Your task to perform on an android device: Is it going to rain tomorrow? Image 0: 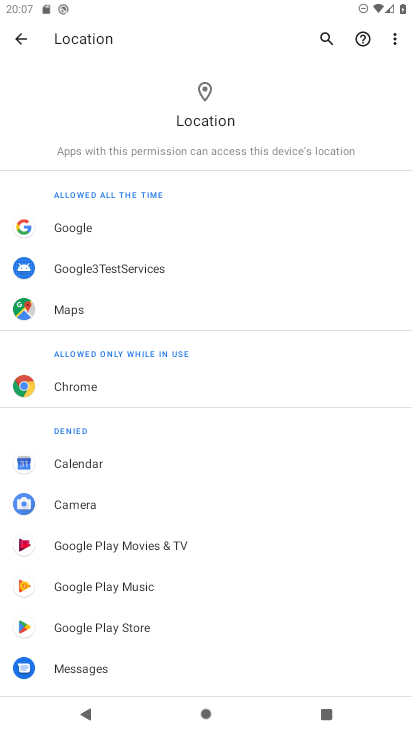
Step 0: press home button
Your task to perform on an android device: Is it going to rain tomorrow? Image 1: 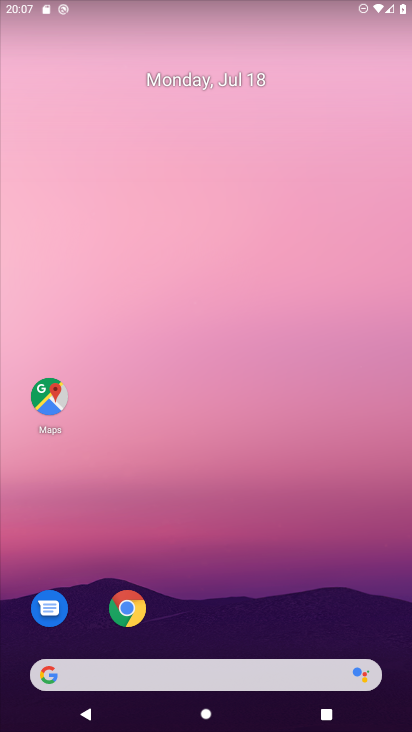
Step 1: drag from (207, 619) to (273, 99)
Your task to perform on an android device: Is it going to rain tomorrow? Image 2: 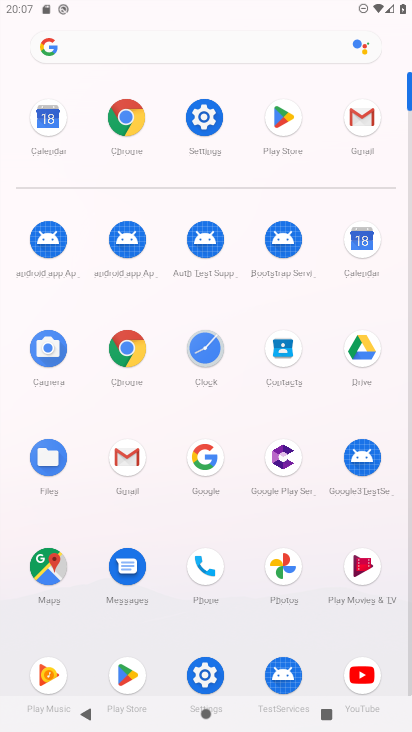
Step 2: click (207, 447)
Your task to perform on an android device: Is it going to rain tomorrow? Image 3: 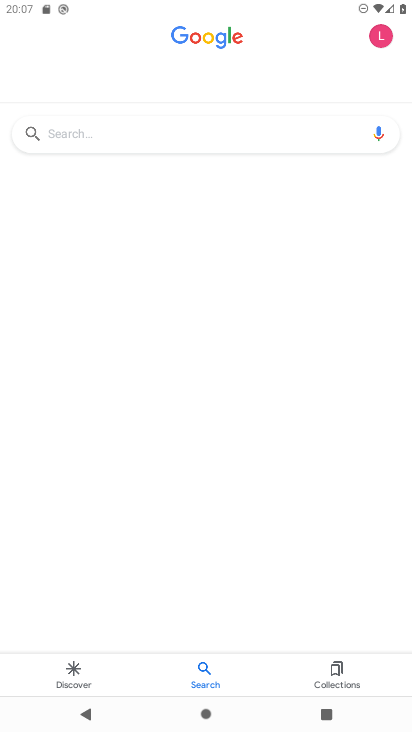
Step 3: click (144, 116)
Your task to perform on an android device: Is it going to rain tomorrow? Image 4: 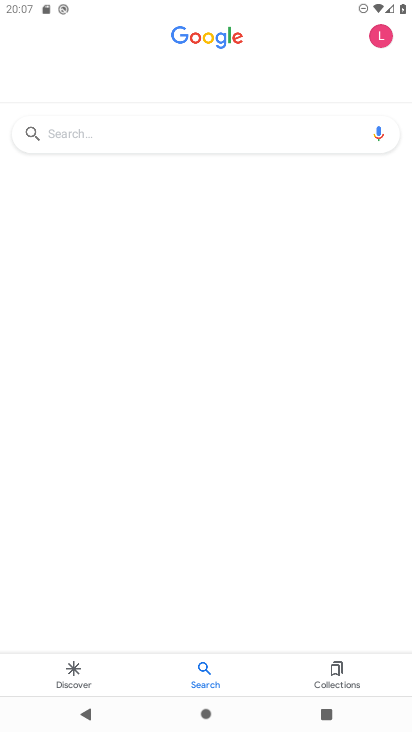
Step 4: click (138, 128)
Your task to perform on an android device: Is it going to rain tomorrow? Image 5: 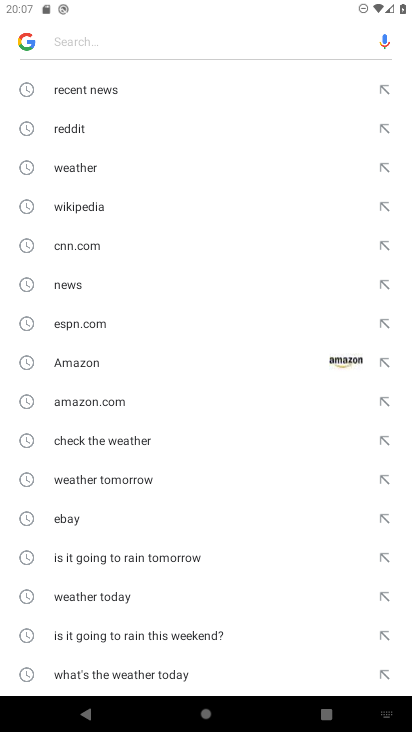
Step 5: type "is it going to rain tomorrow"
Your task to perform on an android device: Is it going to rain tomorrow? Image 6: 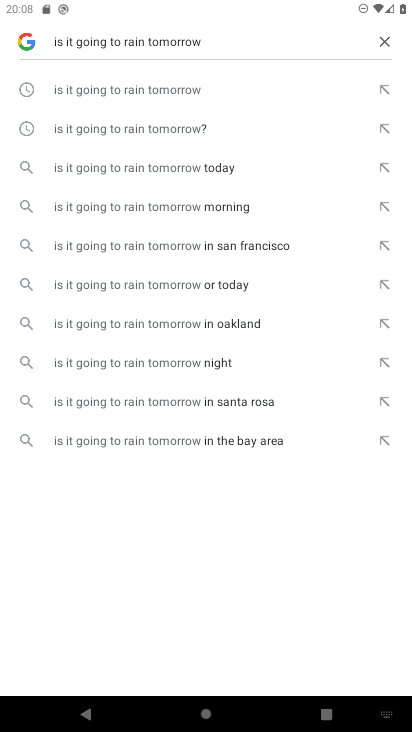
Step 6: click (148, 88)
Your task to perform on an android device: Is it going to rain tomorrow? Image 7: 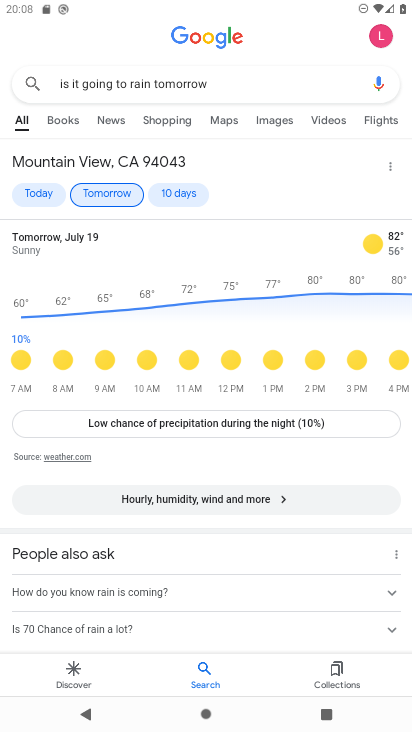
Step 7: task complete